Your task to perform on an android device: check storage Image 0: 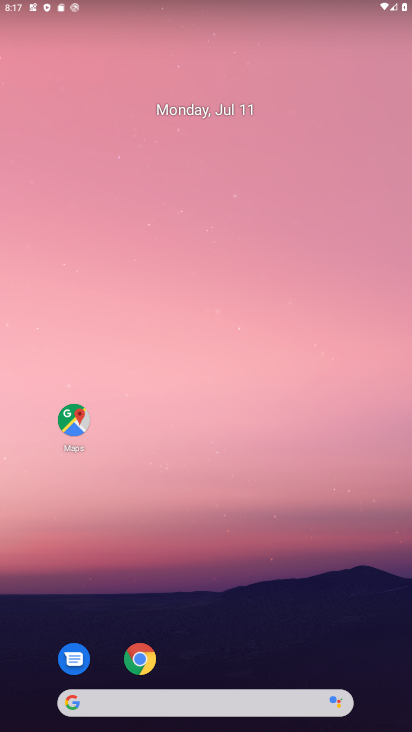
Step 0: drag from (211, 662) to (256, 99)
Your task to perform on an android device: check storage Image 1: 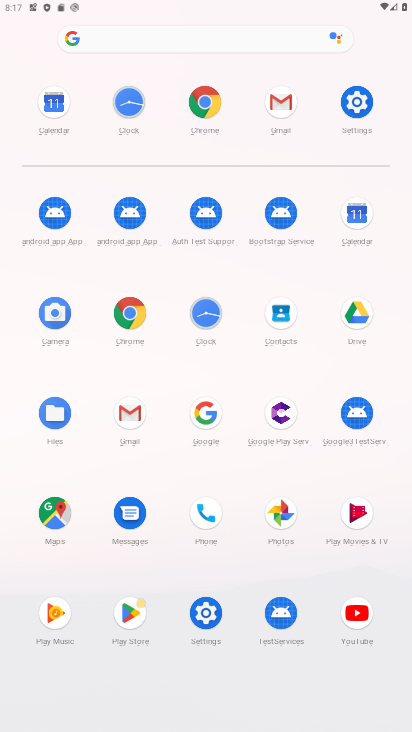
Step 1: click (363, 91)
Your task to perform on an android device: check storage Image 2: 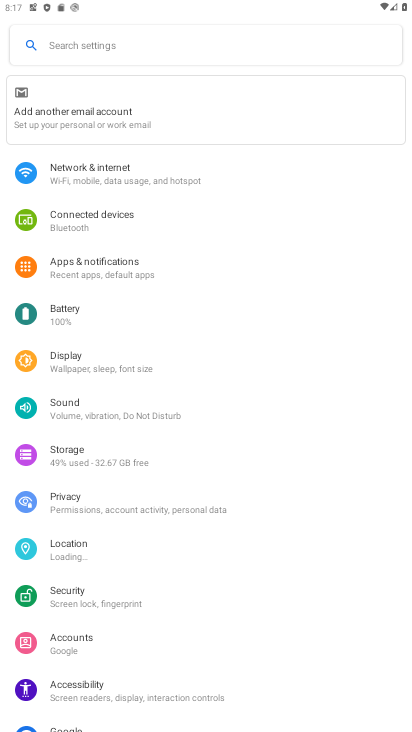
Step 2: click (80, 451)
Your task to perform on an android device: check storage Image 3: 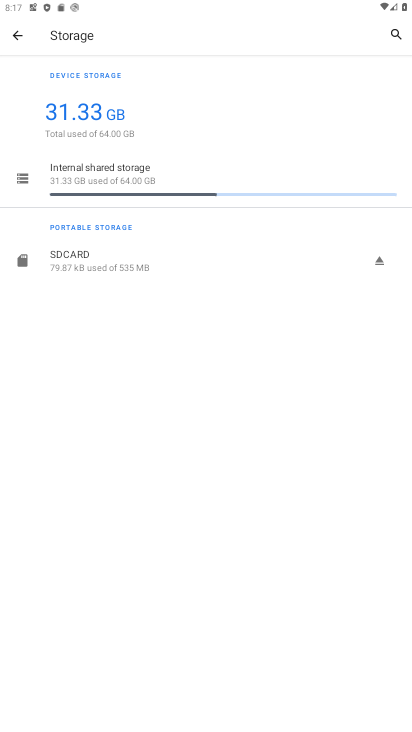
Step 3: task complete